Your task to perform on an android device: Open calendar and show me the first week of next month Image 0: 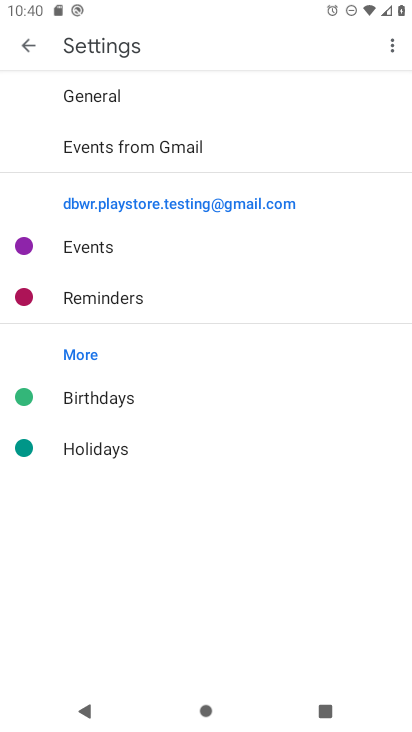
Step 0: press home button
Your task to perform on an android device: Open calendar and show me the first week of next month Image 1: 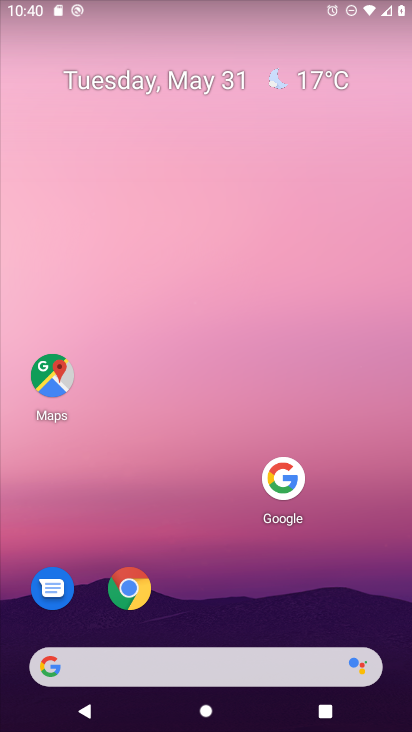
Step 1: drag from (189, 673) to (334, 166)
Your task to perform on an android device: Open calendar and show me the first week of next month Image 2: 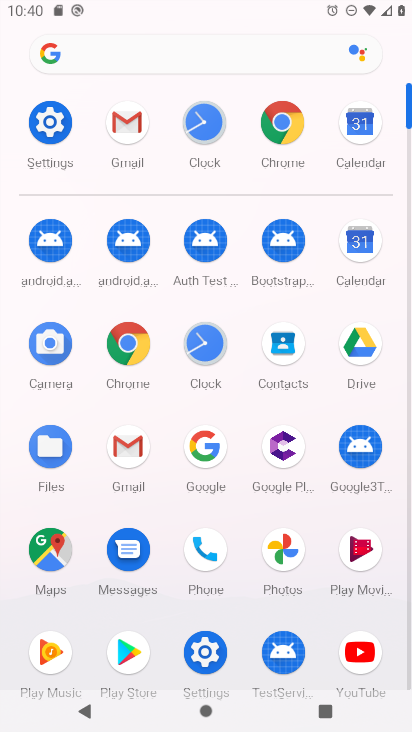
Step 2: click (361, 131)
Your task to perform on an android device: Open calendar and show me the first week of next month Image 3: 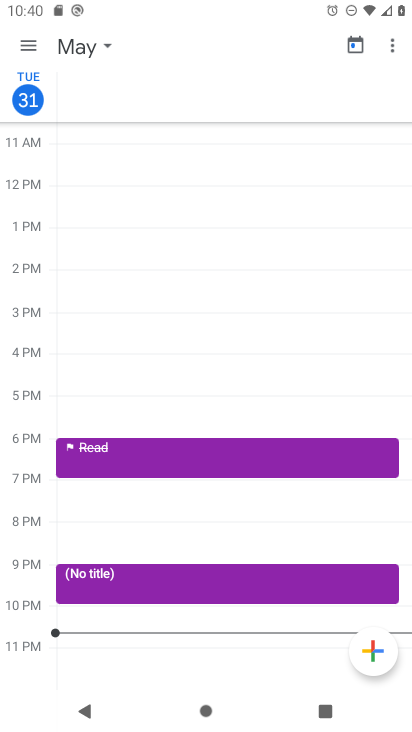
Step 3: click (71, 47)
Your task to perform on an android device: Open calendar and show me the first week of next month Image 4: 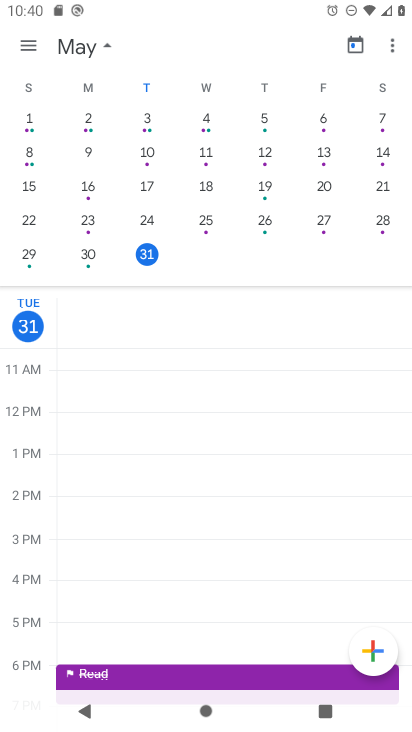
Step 4: drag from (314, 176) to (3, 225)
Your task to perform on an android device: Open calendar and show me the first week of next month Image 5: 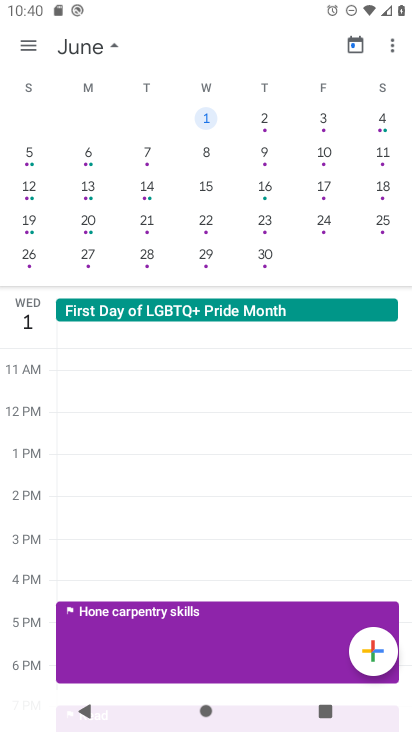
Step 5: click (29, 149)
Your task to perform on an android device: Open calendar and show me the first week of next month Image 6: 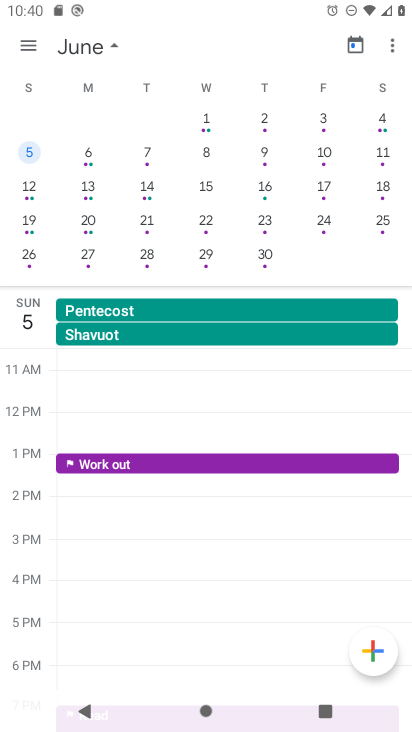
Step 6: click (31, 44)
Your task to perform on an android device: Open calendar and show me the first week of next month Image 7: 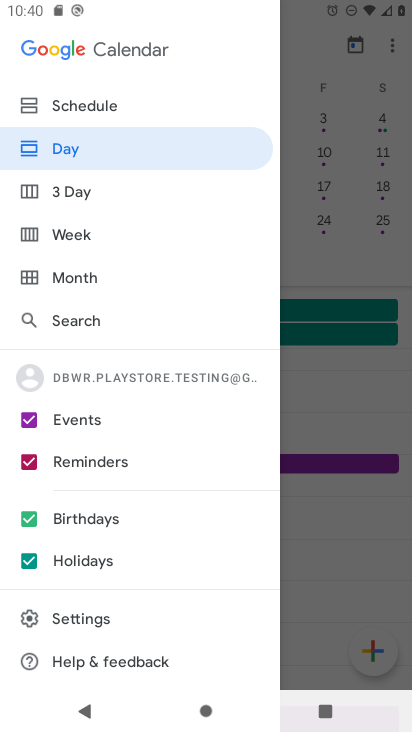
Step 7: click (74, 236)
Your task to perform on an android device: Open calendar and show me the first week of next month Image 8: 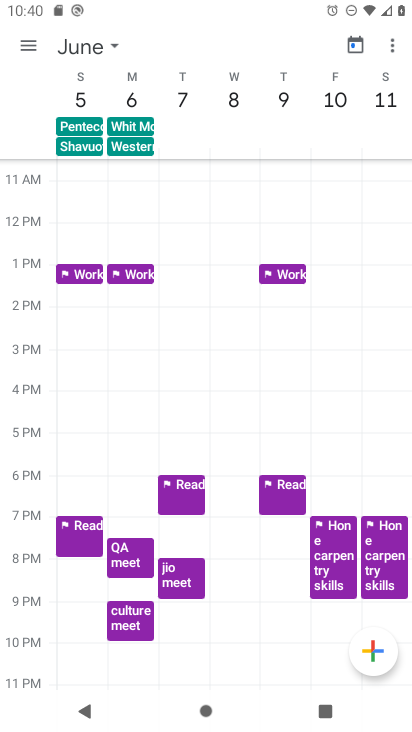
Step 8: task complete